Your task to perform on an android device: Open wifi settings Image 0: 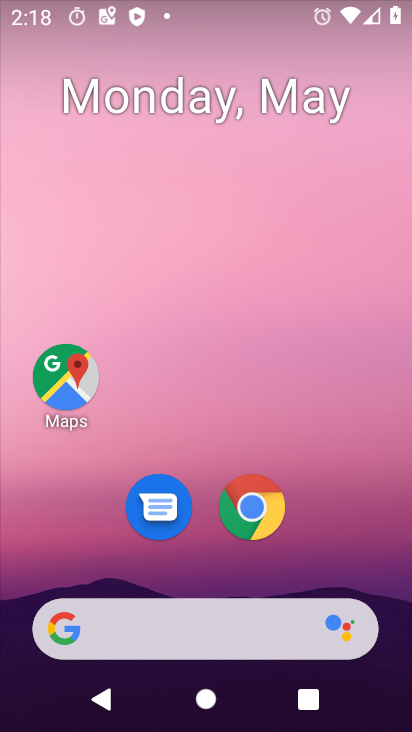
Step 0: drag from (234, 723) to (219, 161)
Your task to perform on an android device: Open wifi settings Image 1: 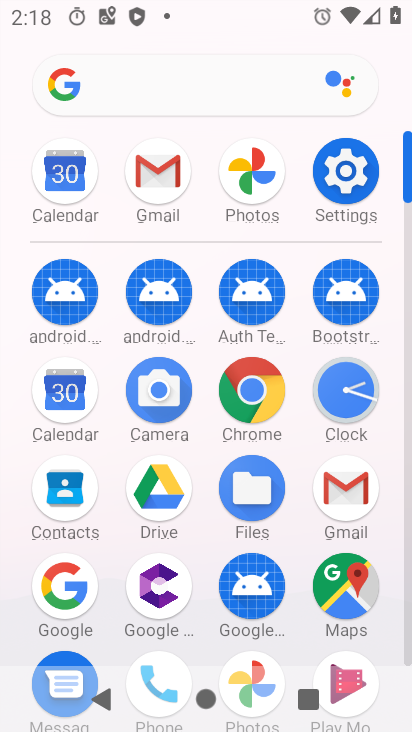
Step 1: click (345, 177)
Your task to perform on an android device: Open wifi settings Image 2: 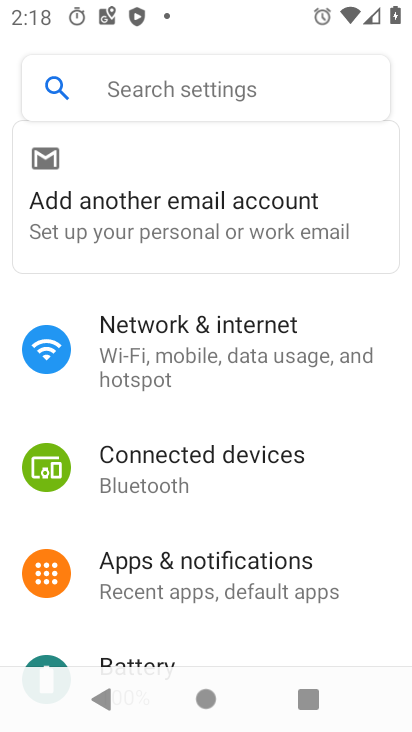
Step 2: click (185, 336)
Your task to perform on an android device: Open wifi settings Image 3: 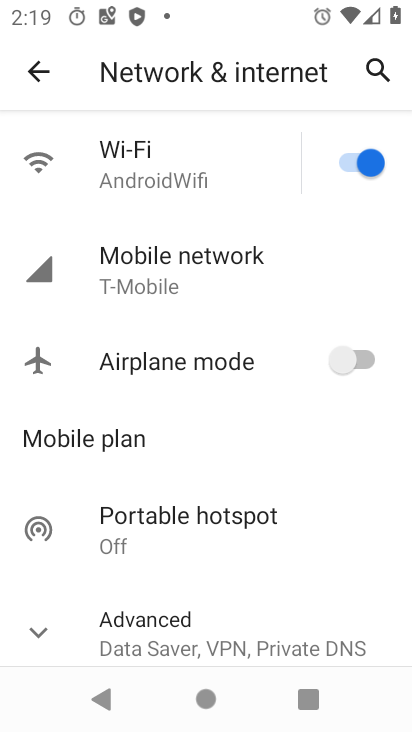
Step 3: click (133, 138)
Your task to perform on an android device: Open wifi settings Image 4: 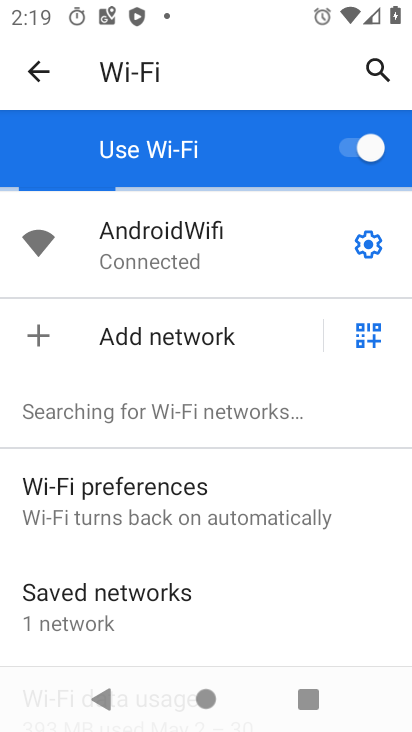
Step 4: task complete